Your task to perform on an android device: change the clock style Image 0: 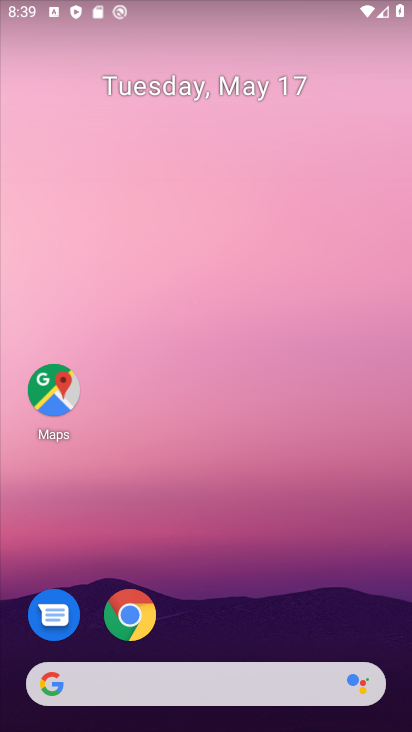
Step 0: drag from (369, 642) to (340, 80)
Your task to perform on an android device: change the clock style Image 1: 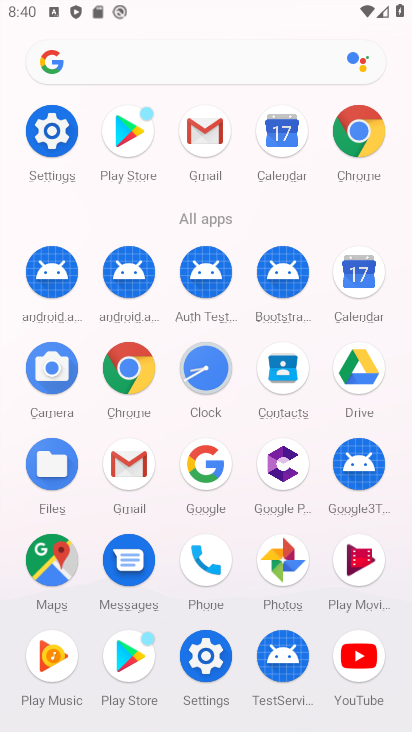
Step 1: click (207, 369)
Your task to perform on an android device: change the clock style Image 2: 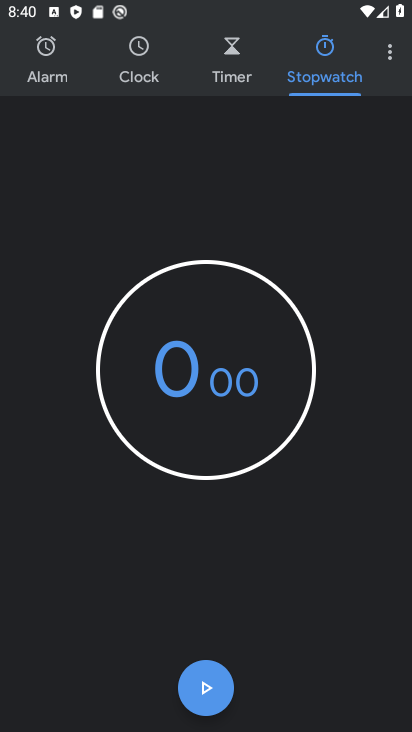
Step 2: click (389, 64)
Your task to perform on an android device: change the clock style Image 3: 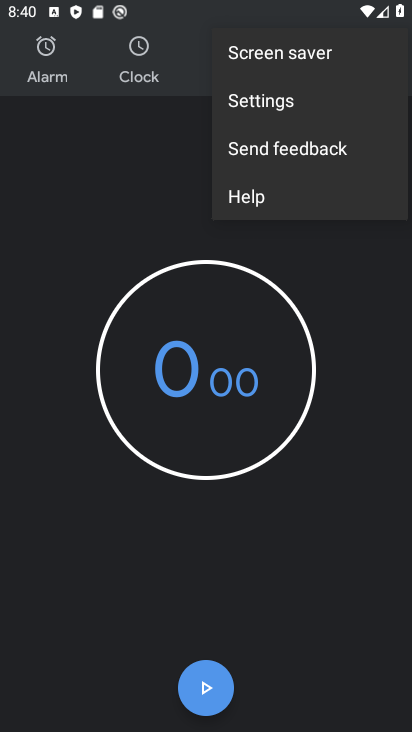
Step 3: click (256, 99)
Your task to perform on an android device: change the clock style Image 4: 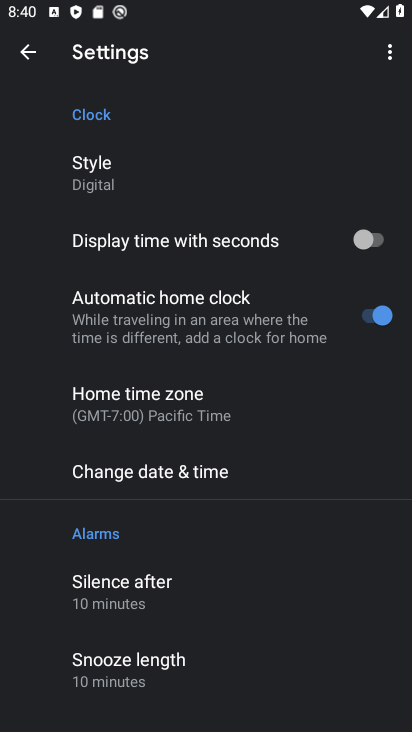
Step 4: click (100, 178)
Your task to perform on an android device: change the clock style Image 5: 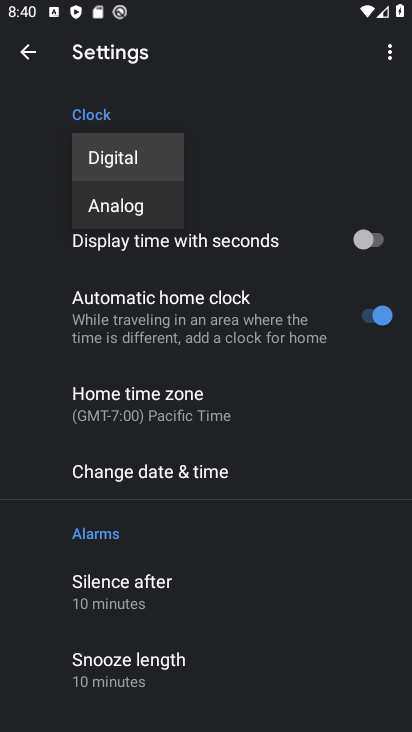
Step 5: click (113, 208)
Your task to perform on an android device: change the clock style Image 6: 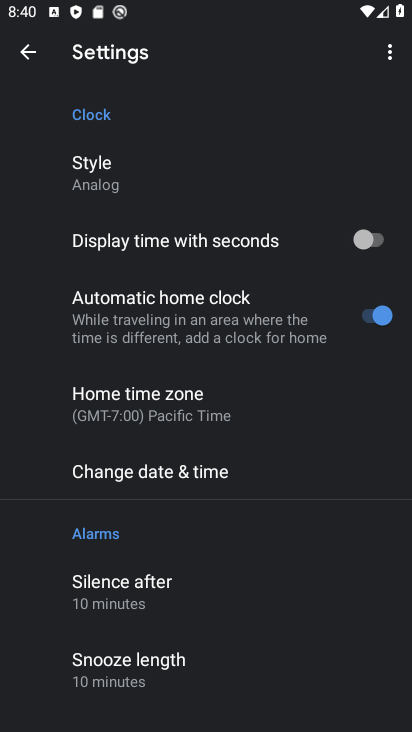
Step 6: task complete